Your task to perform on an android device: clear history in the chrome app Image 0: 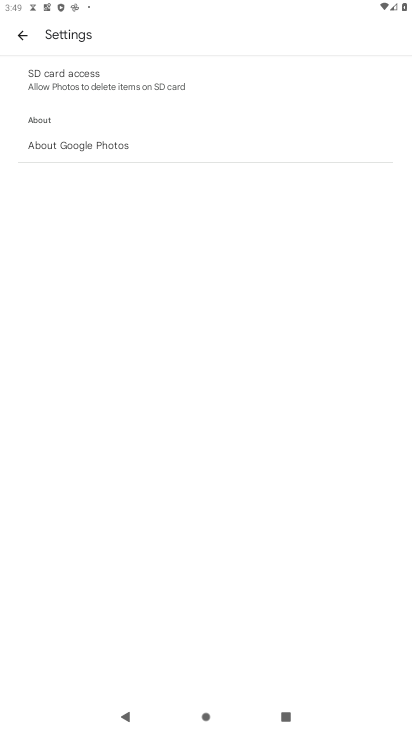
Step 0: press home button
Your task to perform on an android device: clear history in the chrome app Image 1: 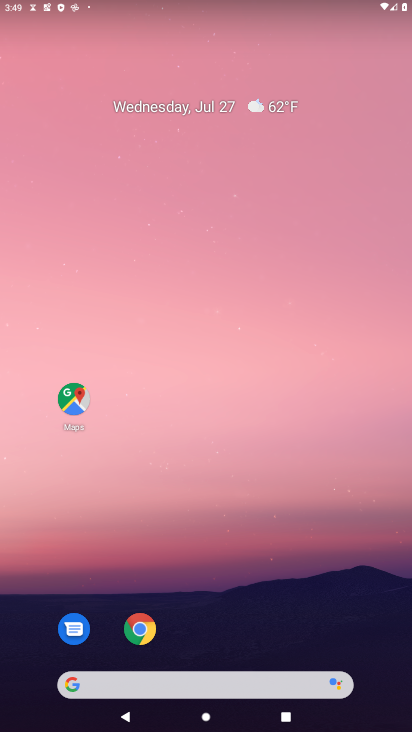
Step 1: click (140, 628)
Your task to perform on an android device: clear history in the chrome app Image 2: 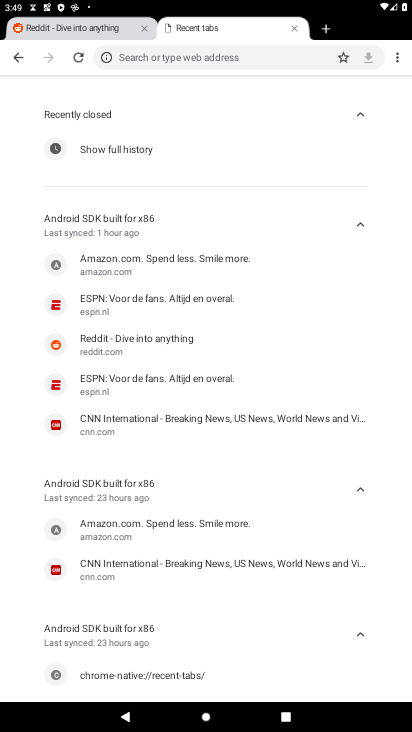
Step 2: click (400, 56)
Your task to perform on an android device: clear history in the chrome app Image 3: 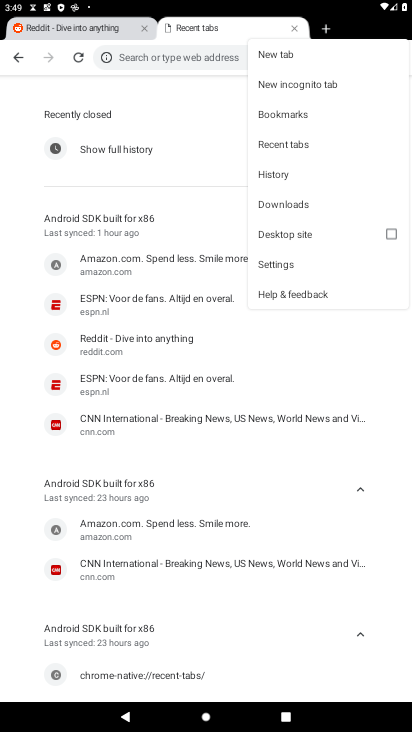
Step 3: click (284, 174)
Your task to perform on an android device: clear history in the chrome app Image 4: 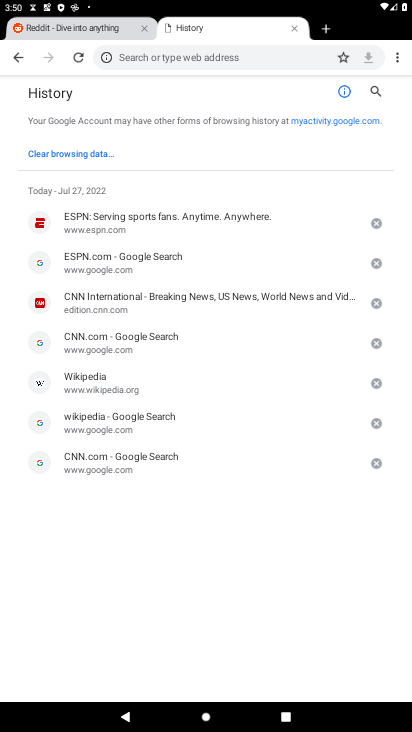
Step 4: click (96, 156)
Your task to perform on an android device: clear history in the chrome app Image 5: 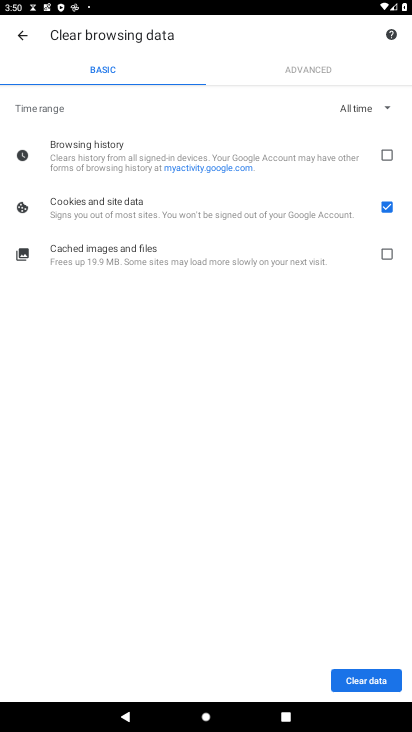
Step 5: click (377, 152)
Your task to perform on an android device: clear history in the chrome app Image 6: 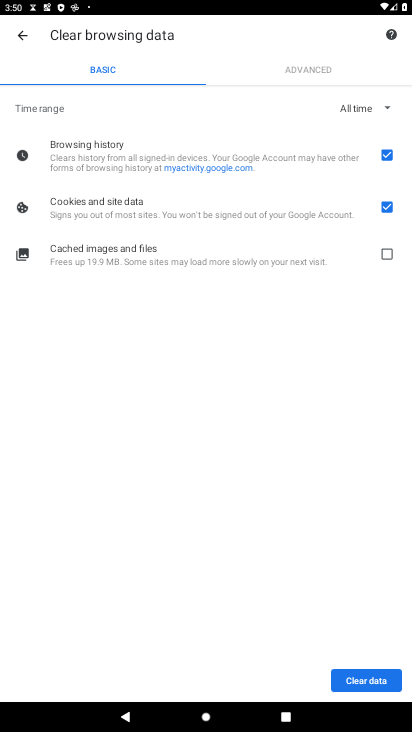
Step 6: click (388, 156)
Your task to perform on an android device: clear history in the chrome app Image 7: 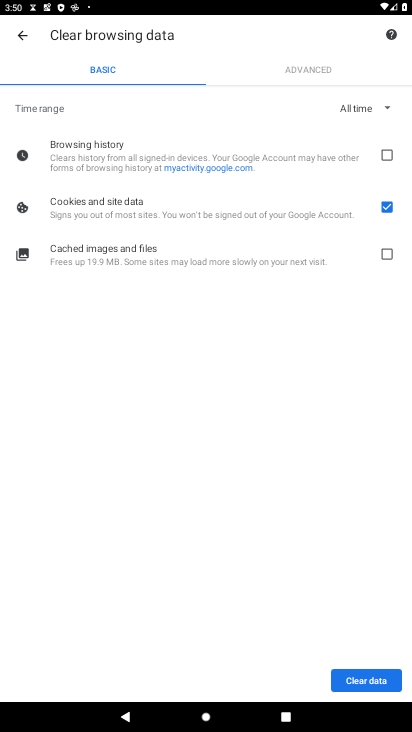
Step 7: click (388, 156)
Your task to perform on an android device: clear history in the chrome app Image 8: 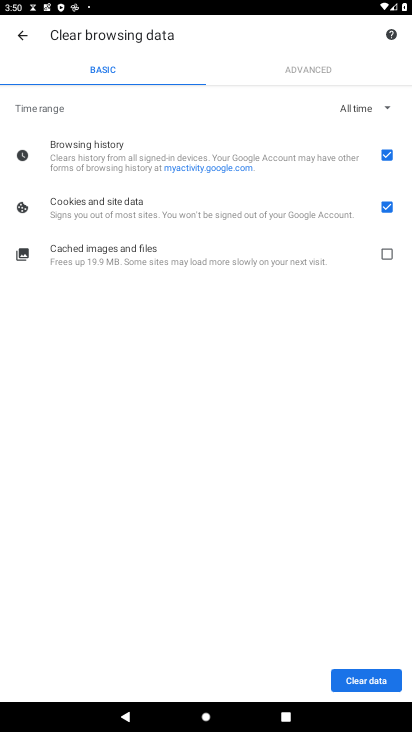
Step 8: click (385, 250)
Your task to perform on an android device: clear history in the chrome app Image 9: 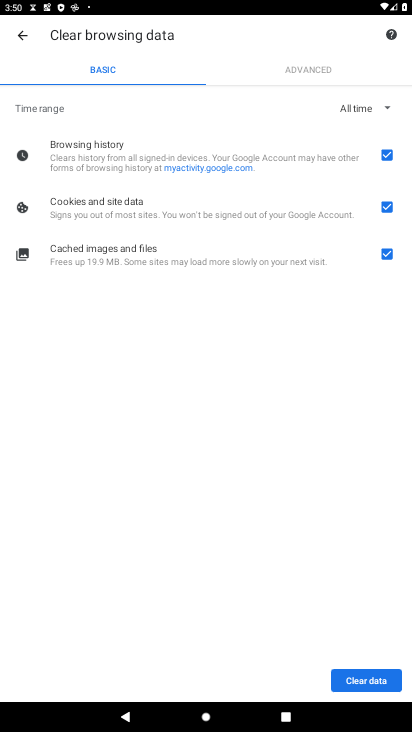
Step 9: click (370, 683)
Your task to perform on an android device: clear history in the chrome app Image 10: 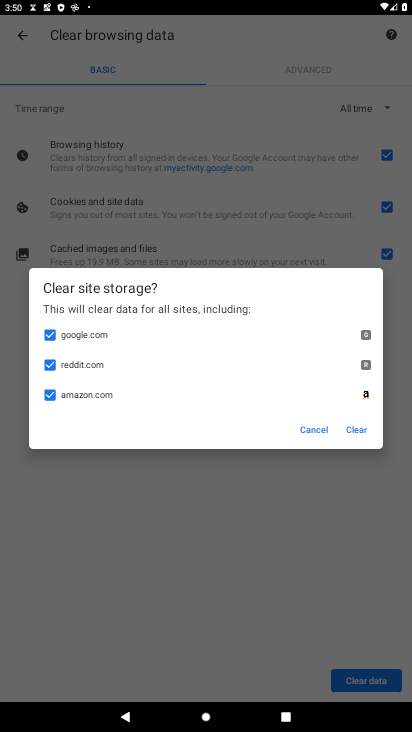
Step 10: click (359, 431)
Your task to perform on an android device: clear history in the chrome app Image 11: 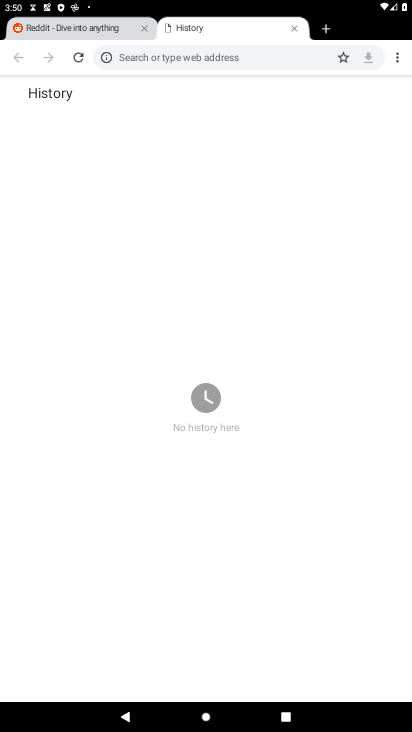
Step 11: task complete